Your task to perform on an android device: open app "Google Home" Image 0: 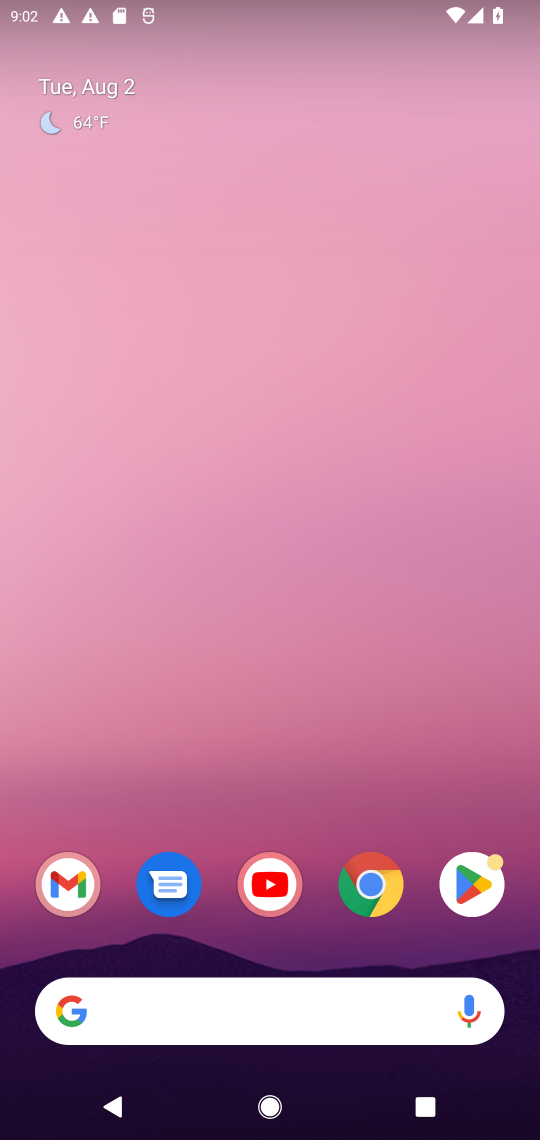
Step 0: click (467, 879)
Your task to perform on an android device: open app "Google Home" Image 1: 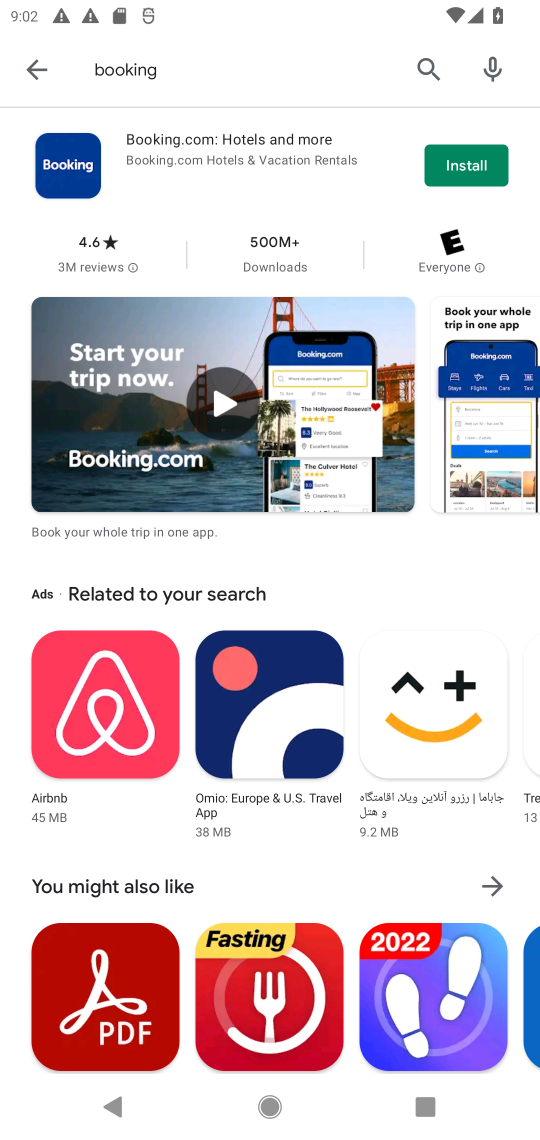
Step 1: click (415, 56)
Your task to perform on an android device: open app "Google Home" Image 2: 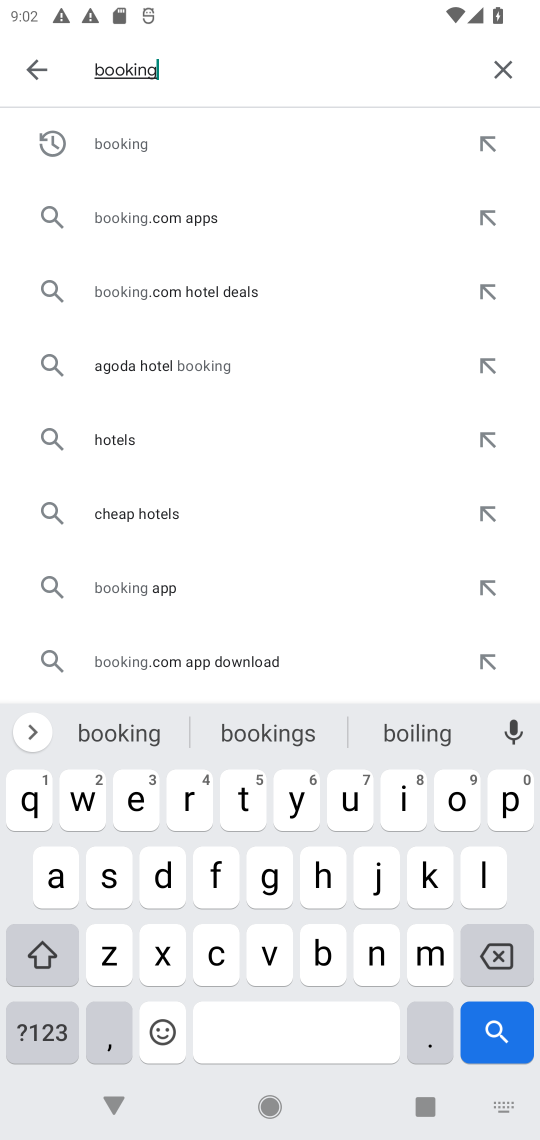
Step 2: click (504, 62)
Your task to perform on an android device: open app "Google Home" Image 3: 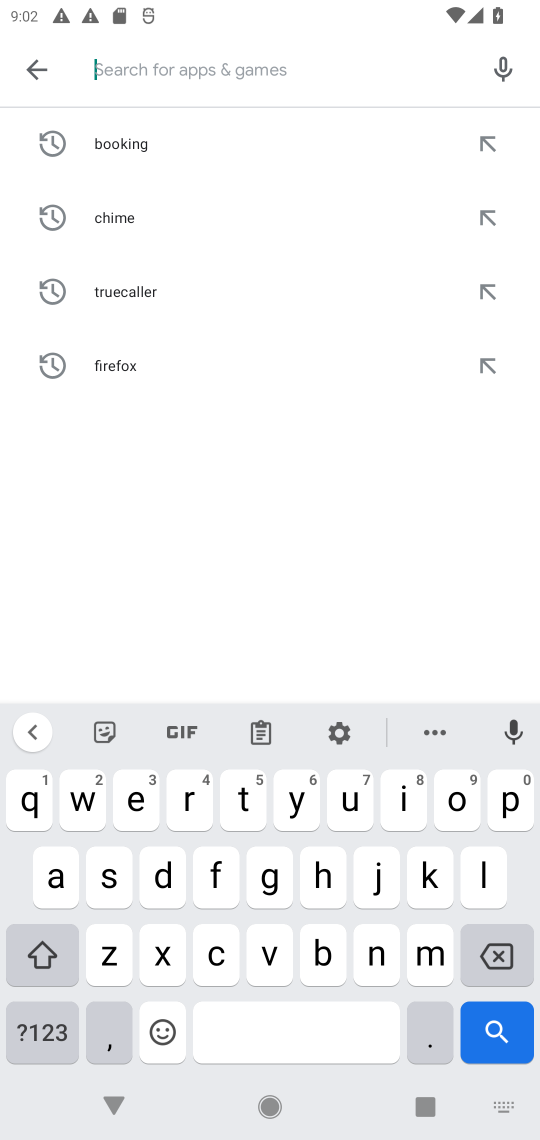
Step 3: click (279, 872)
Your task to perform on an android device: open app "Google Home" Image 4: 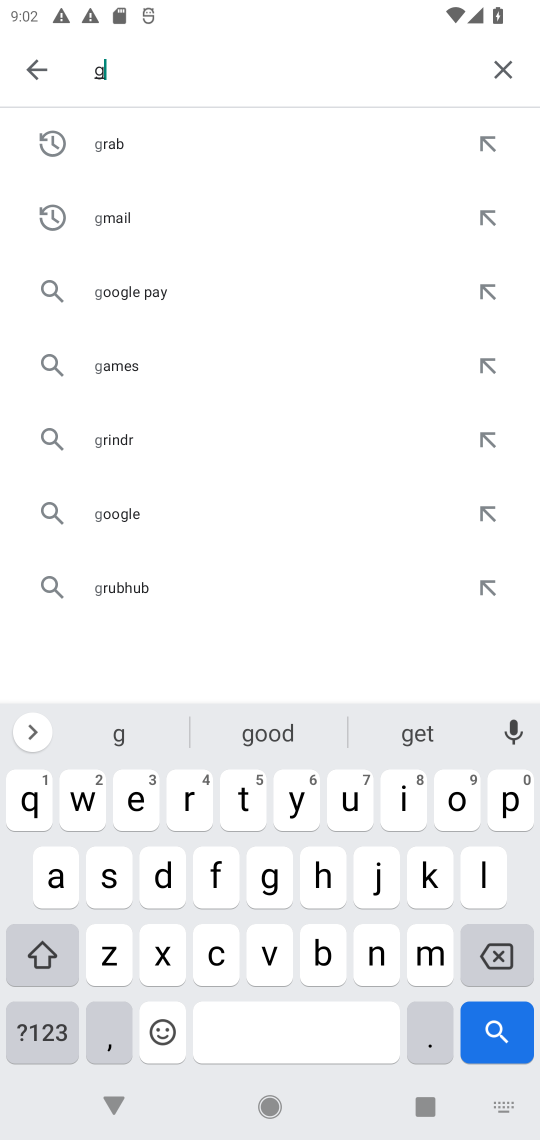
Step 4: click (450, 801)
Your task to perform on an android device: open app "Google Home" Image 5: 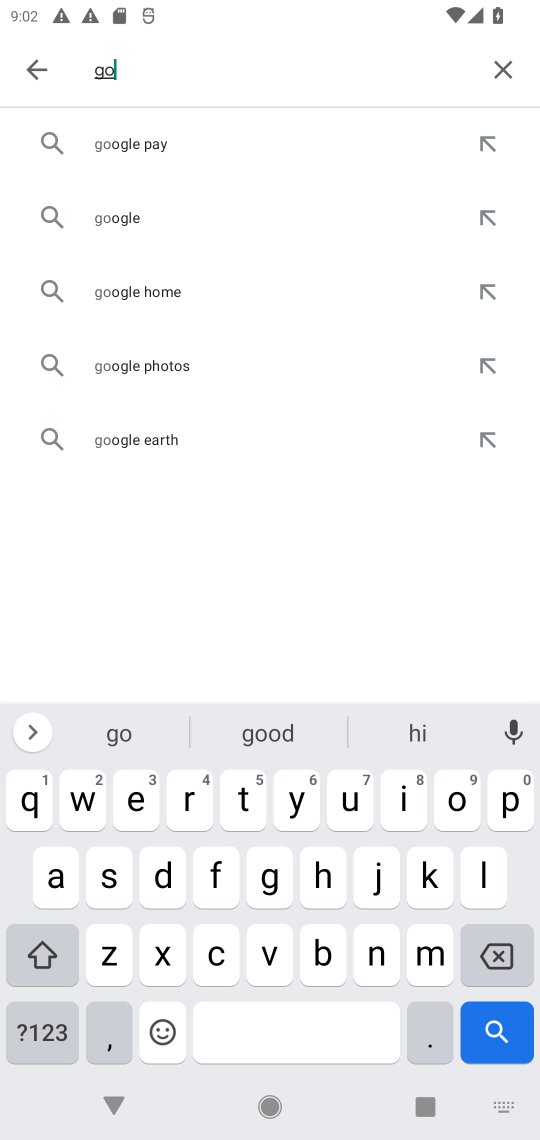
Step 5: click (454, 799)
Your task to perform on an android device: open app "Google Home" Image 6: 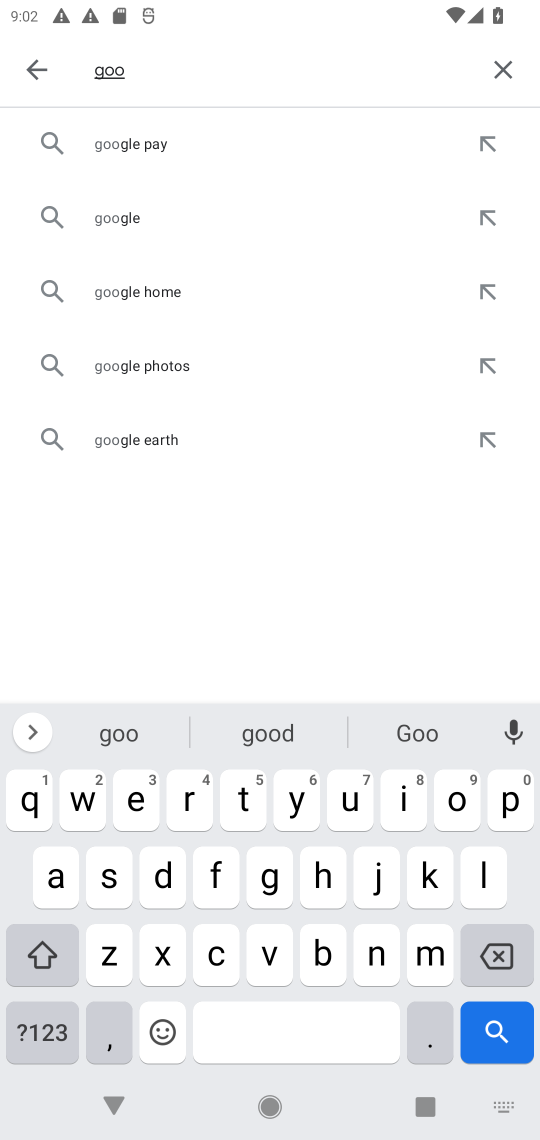
Step 6: click (262, 875)
Your task to perform on an android device: open app "Google Home" Image 7: 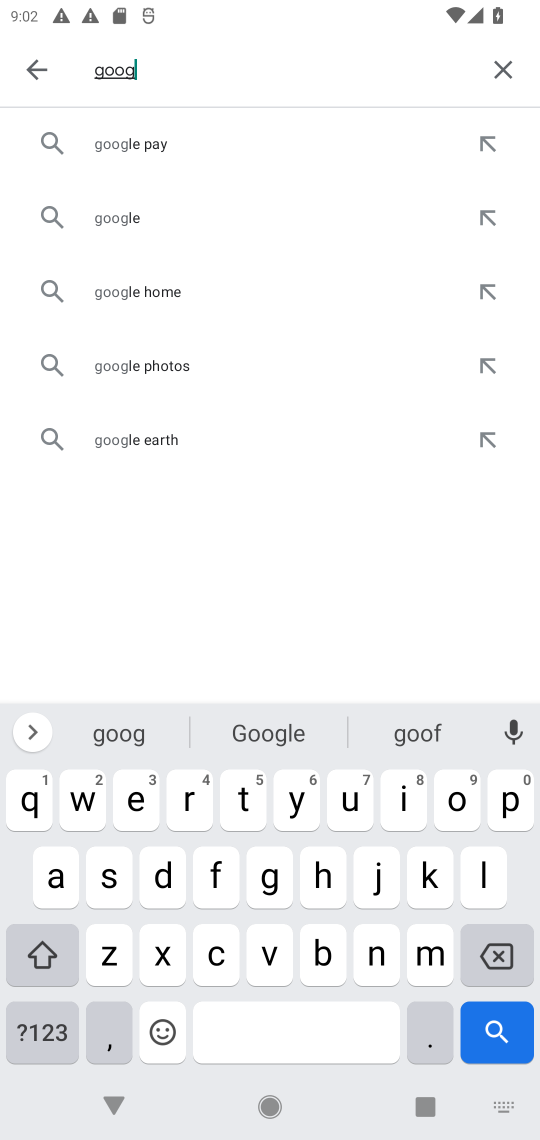
Step 7: click (484, 860)
Your task to perform on an android device: open app "Google Home" Image 8: 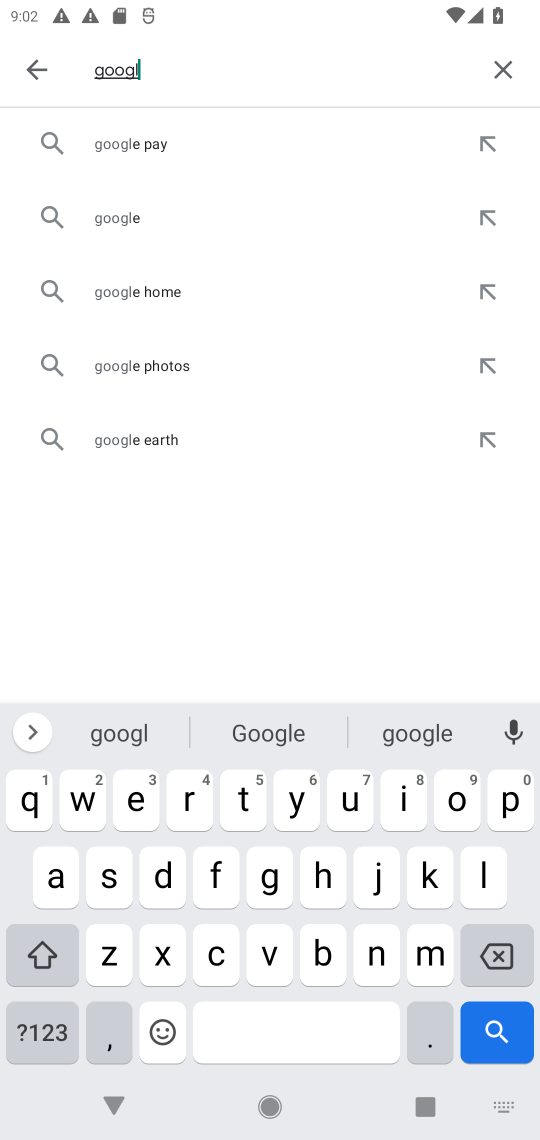
Step 8: click (280, 722)
Your task to perform on an android device: open app "Google Home" Image 9: 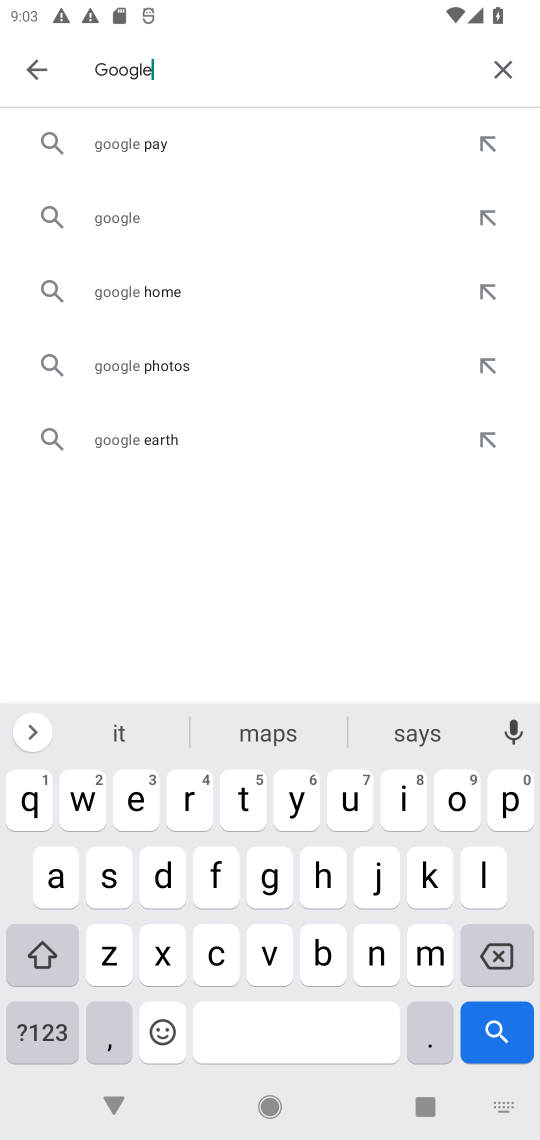
Step 9: click (312, 882)
Your task to perform on an android device: open app "Google Home" Image 10: 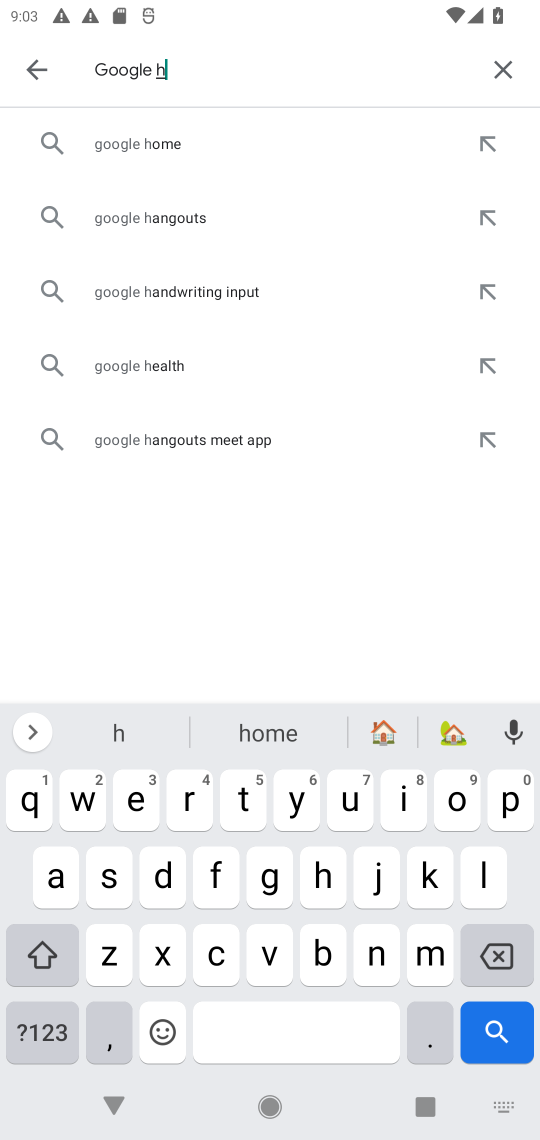
Step 10: click (184, 147)
Your task to perform on an android device: open app "Google Home" Image 11: 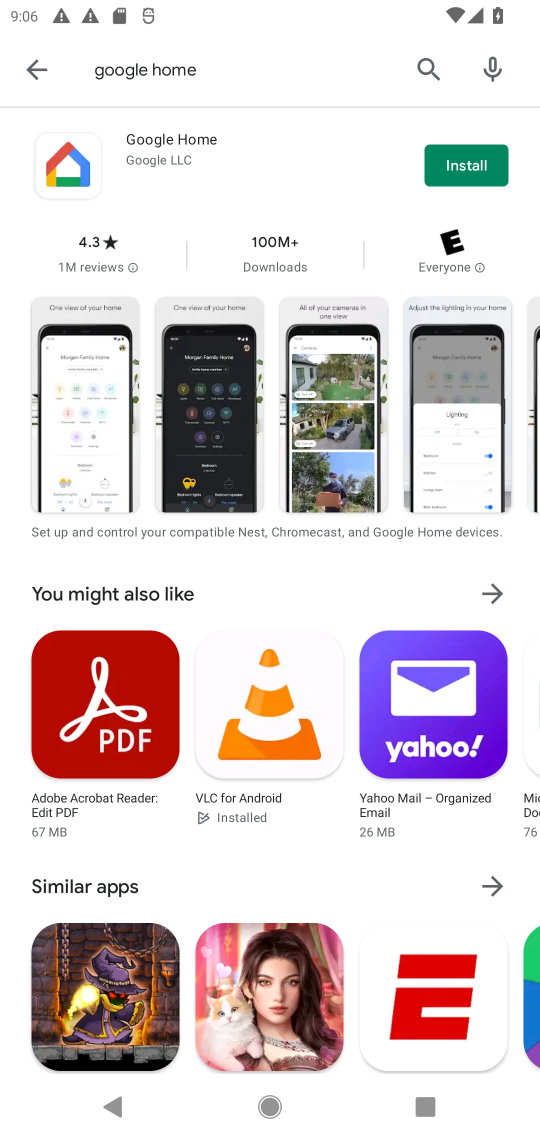
Step 11: task complete